Your task to perform on an android device: open device folders in google photos Image 0: 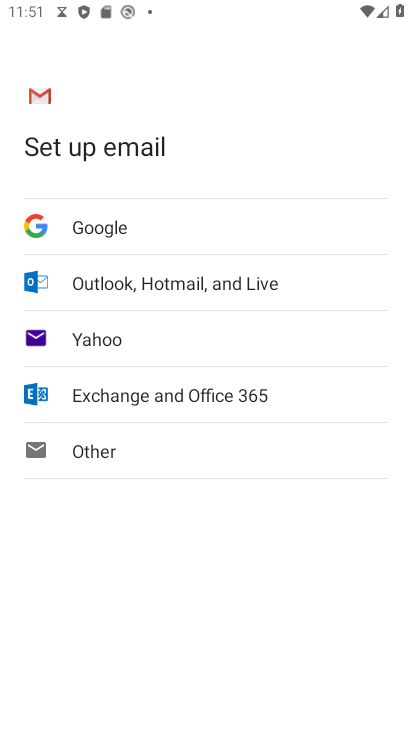
Step 0: press home button
Your task to perform on an android device: open device folders in google photos Image 1: 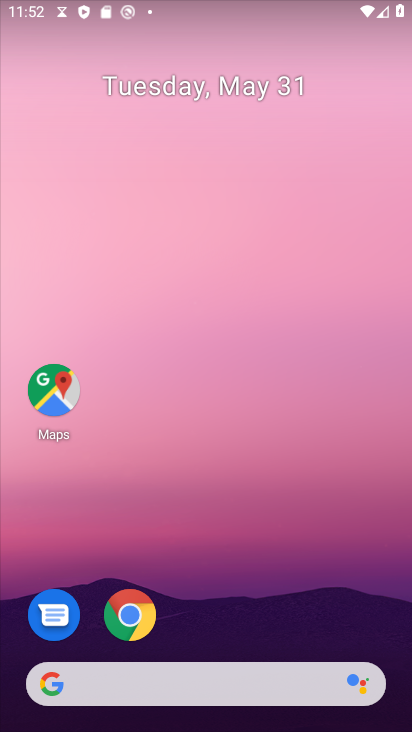
Step 1: drag from (257, 686) to (182, 4)
Your task to perform on an android device: open device folders in google photos Image 2: 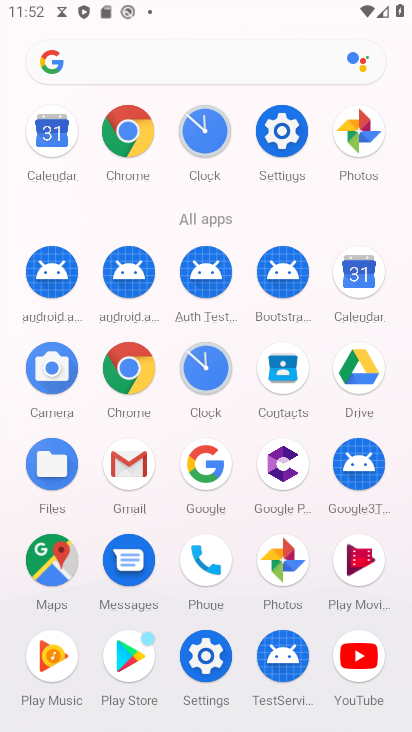
Step 2: click (290, 558)
Your task to perform on an android device: open device folders in google photos Image 3: 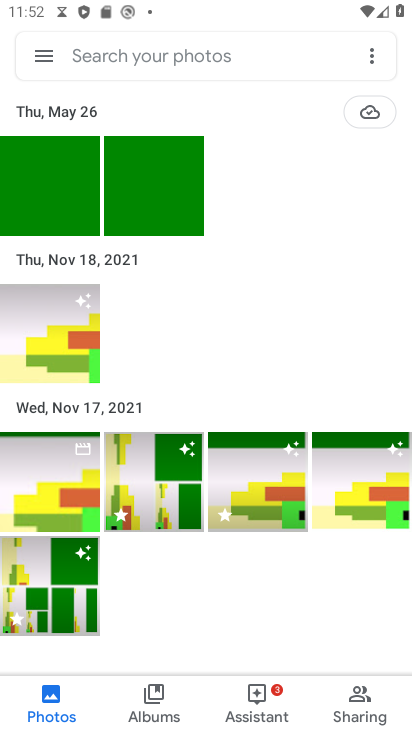
Step 3: click (58, 51)
Your task to perform on an android device: open device folders in google photos Image 4: 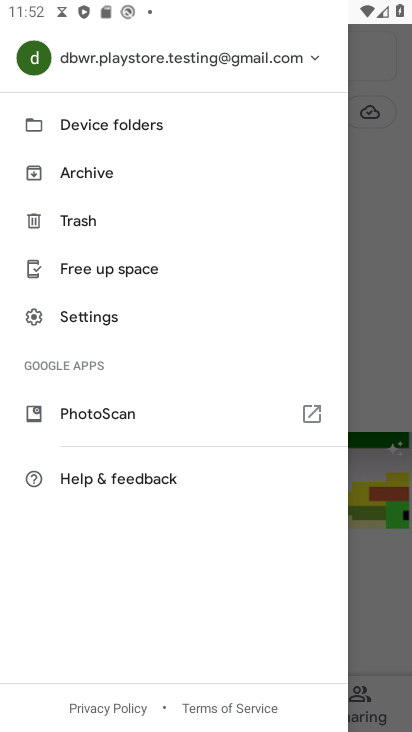
Step 4: click (166, 121)
Your task to perform on an android device: open device folders in google photos Image 5: 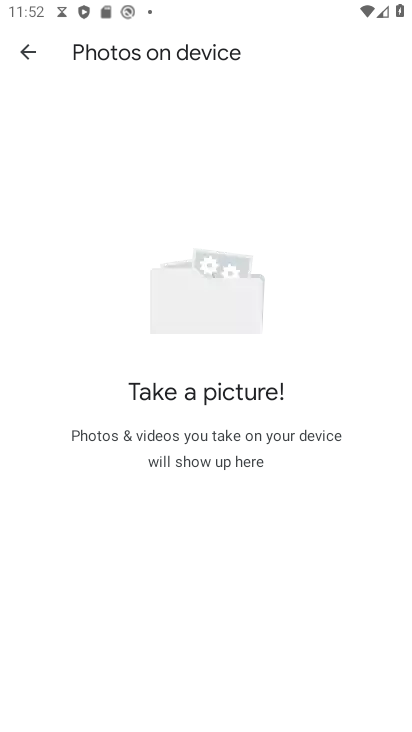
Step 5: task complete